Your task to perform on an android device: change alarm snooze length Image 0: 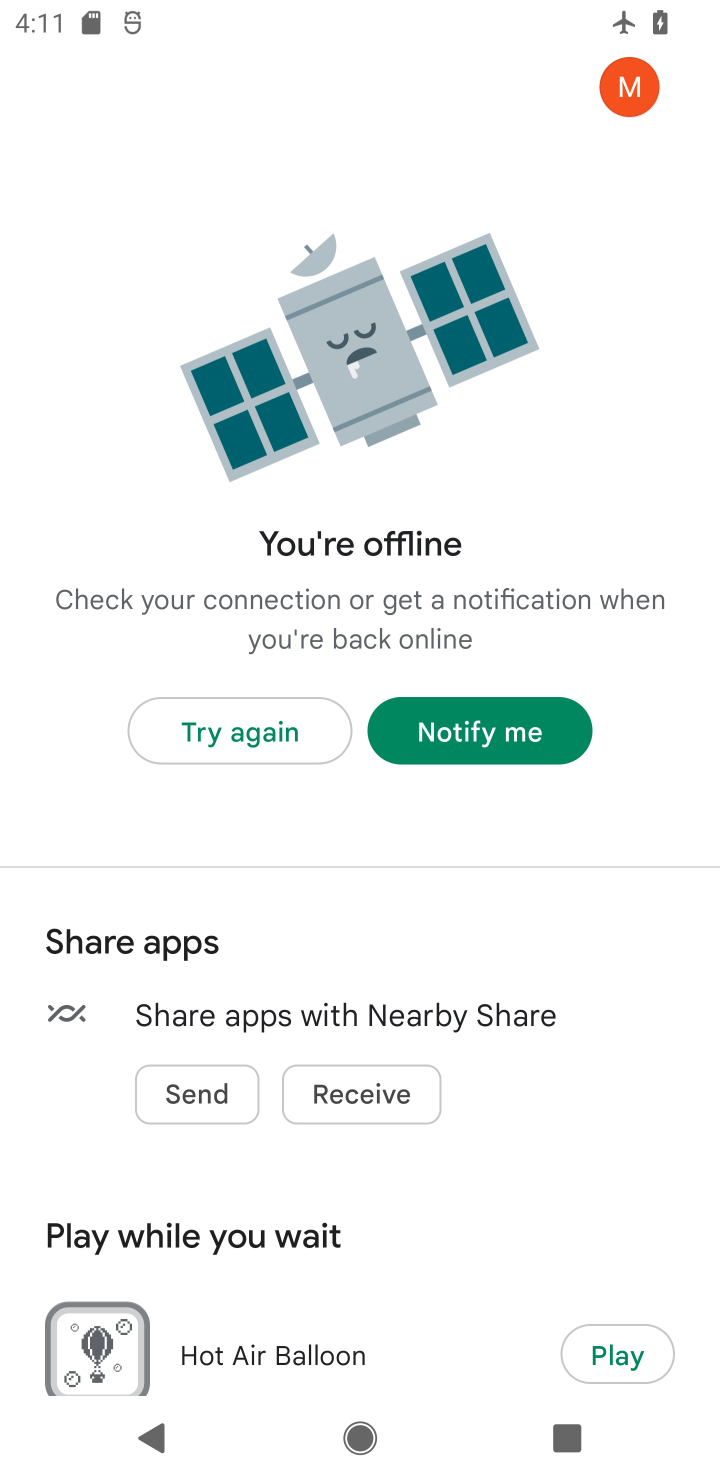
Step 0: press back button
Your task to perform on an android device: change alarm snooze length Image 1: 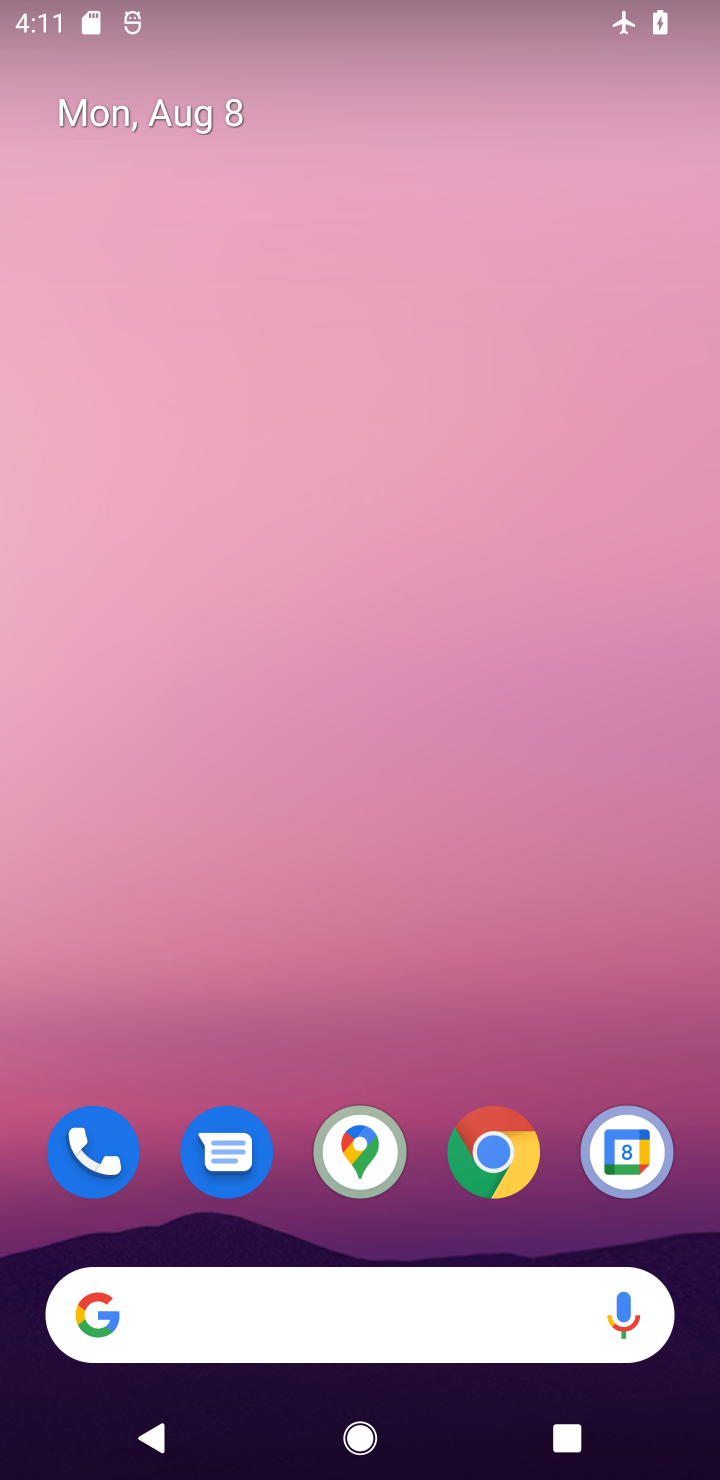
Step 1: drag from (331, 952) to (517, 40)
Your task to perform on an android device: change alarm snooze length Image 2: 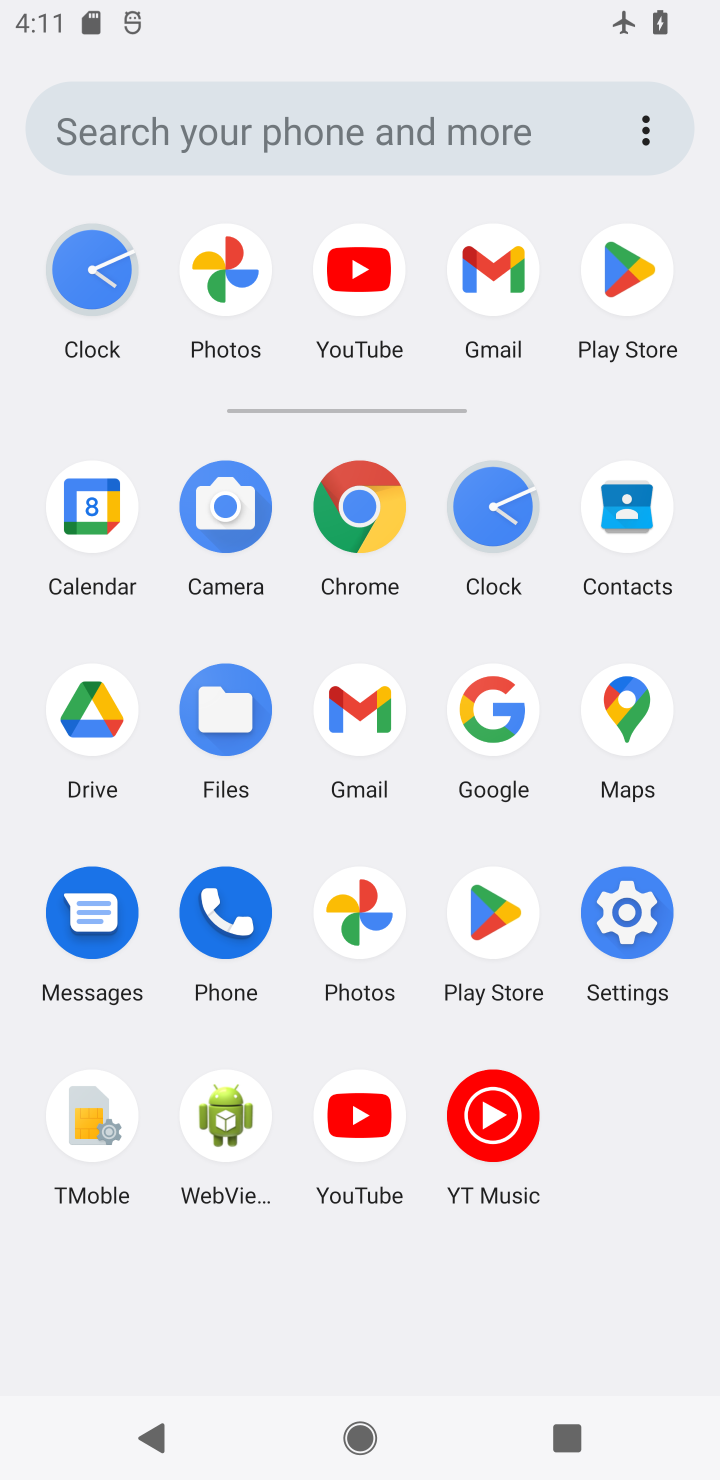
Step 2: click (507, 523)
Your task to perform on an android device: change alarm snooze length Image 3: 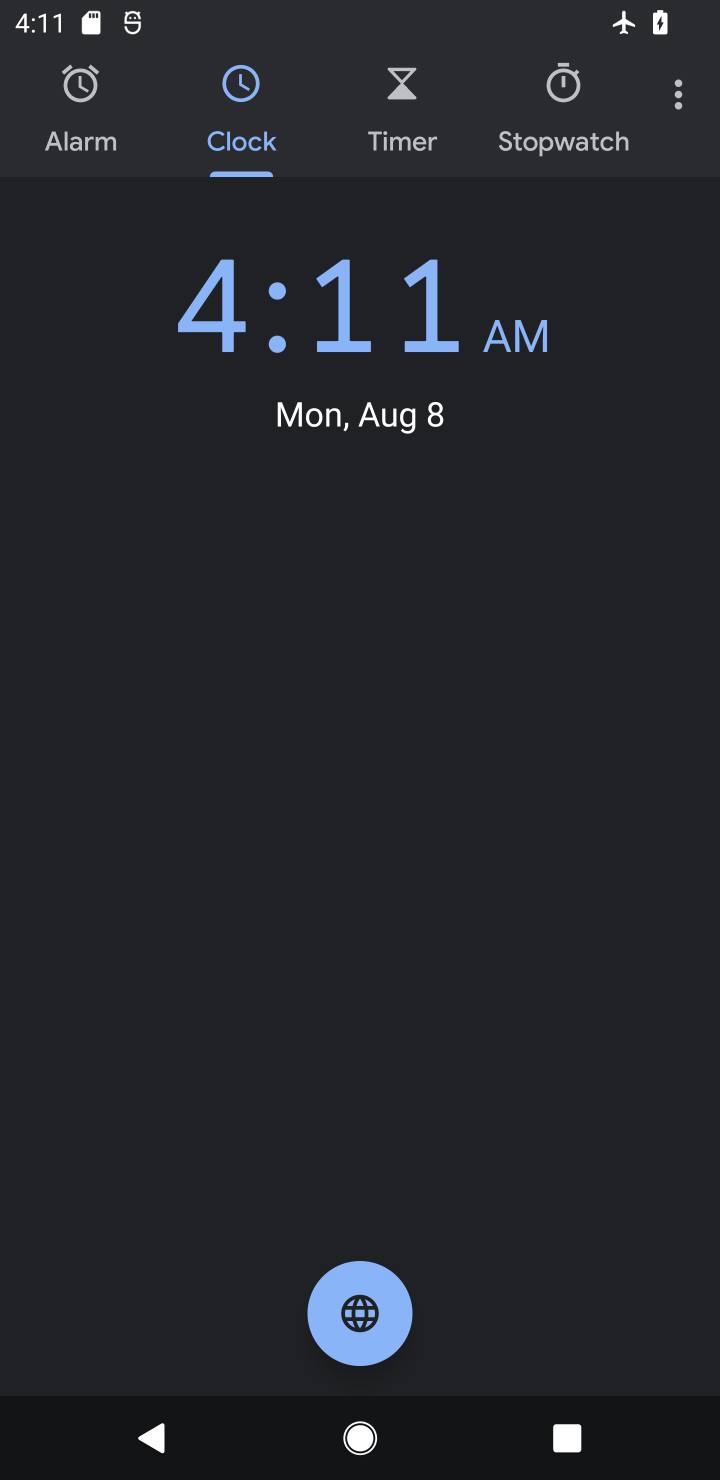
Step 3: click (689, 82)
Your task to perform on an android device: change alarm snooze length Image 4: 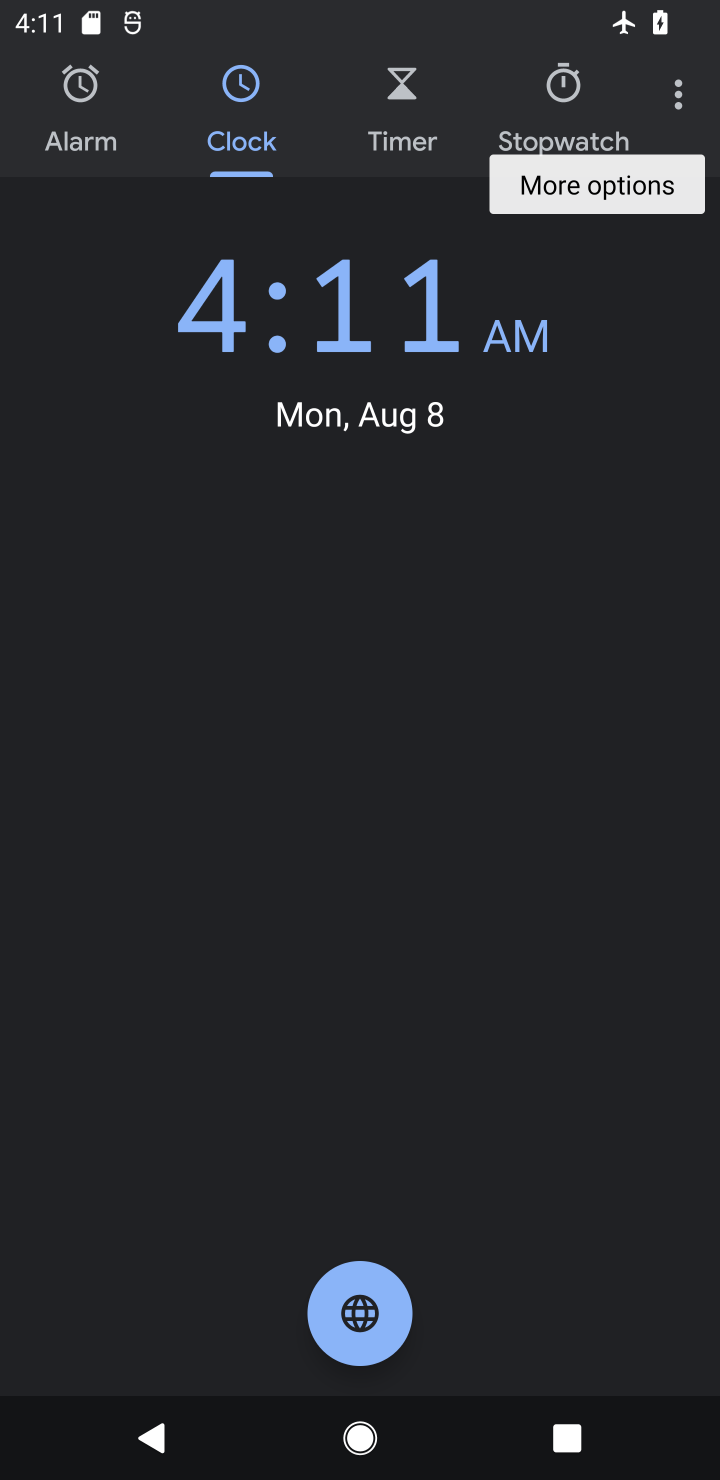
Step 4: click (682, 72)
Your task to perform on an android device: change alarm snooze length Image 5: 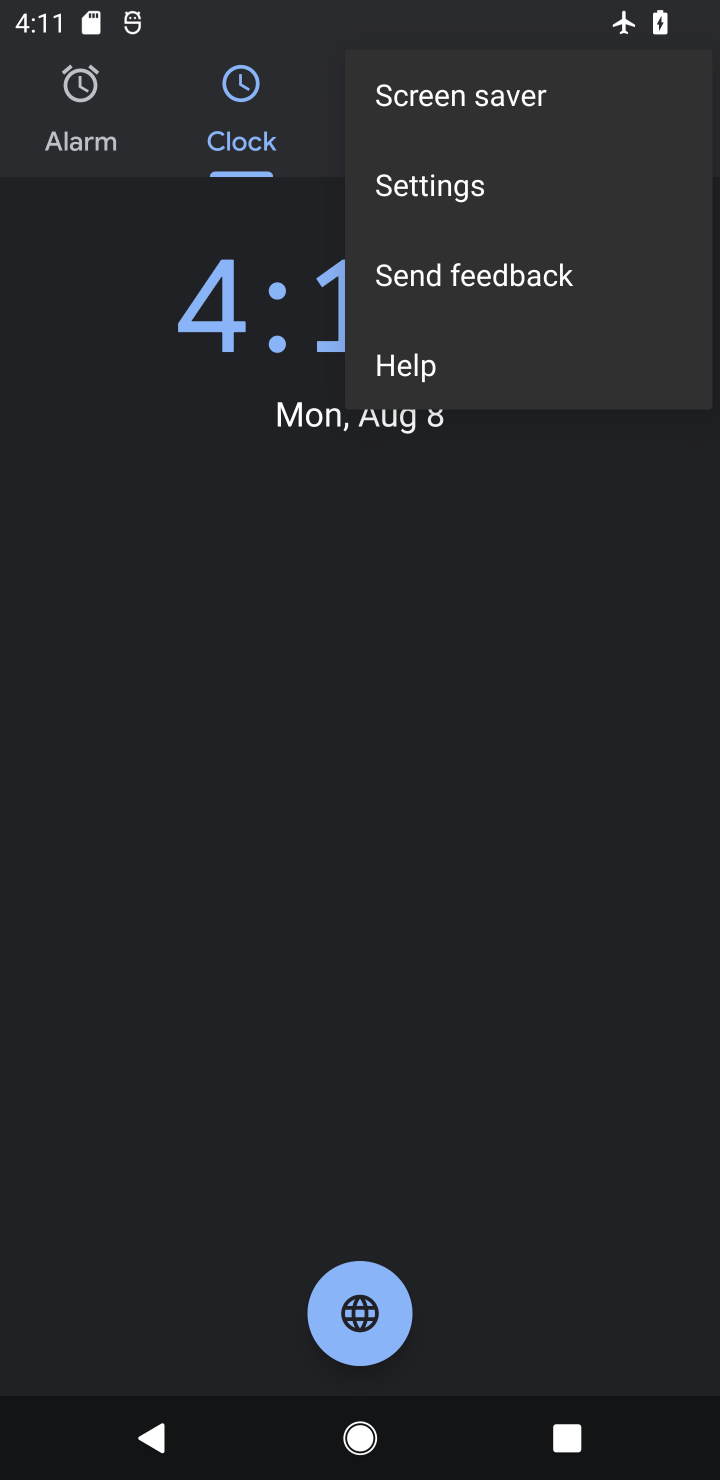
Step 5: click (467, 173)
Your task to perform on an android device: change alarm snooze length Image 6: 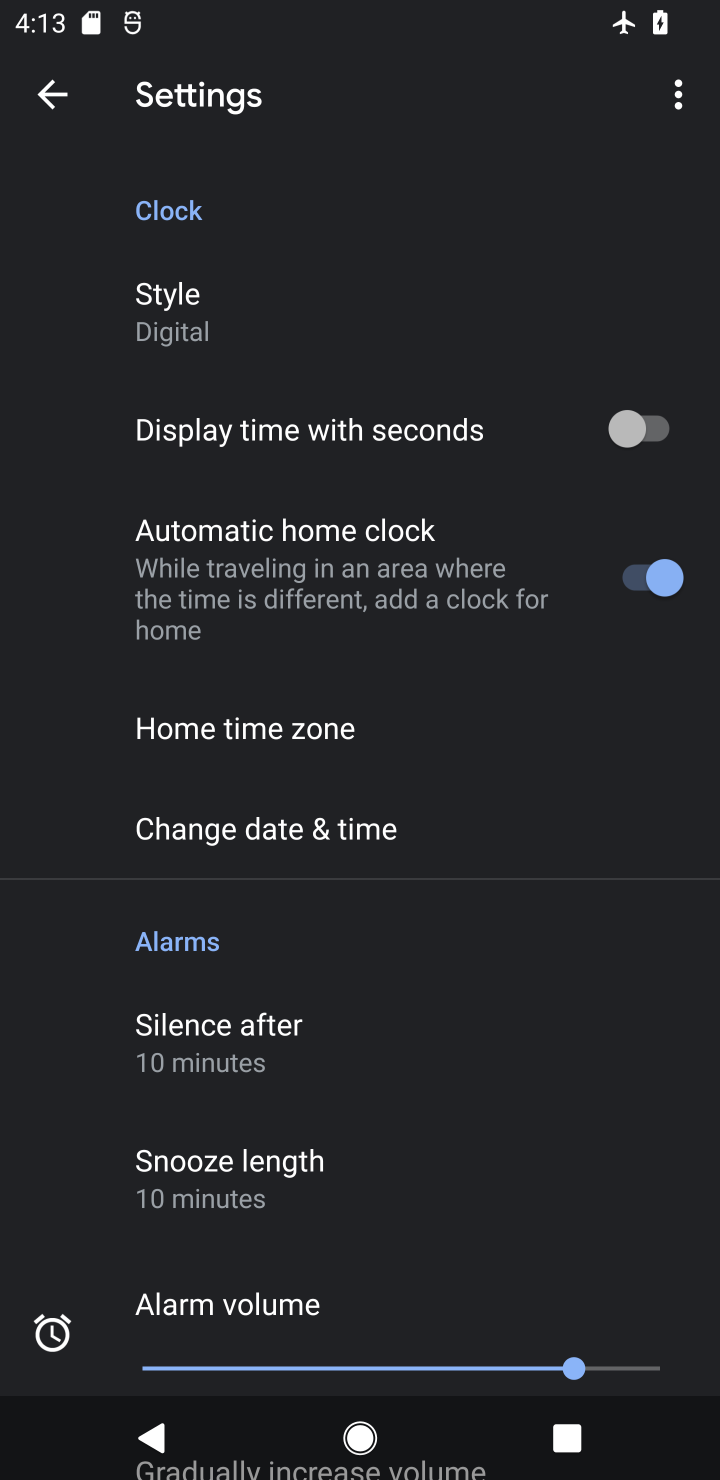
Step 6: click (291, 1166)
Your task to perform on an android device: change alarm snooze length Image 7: 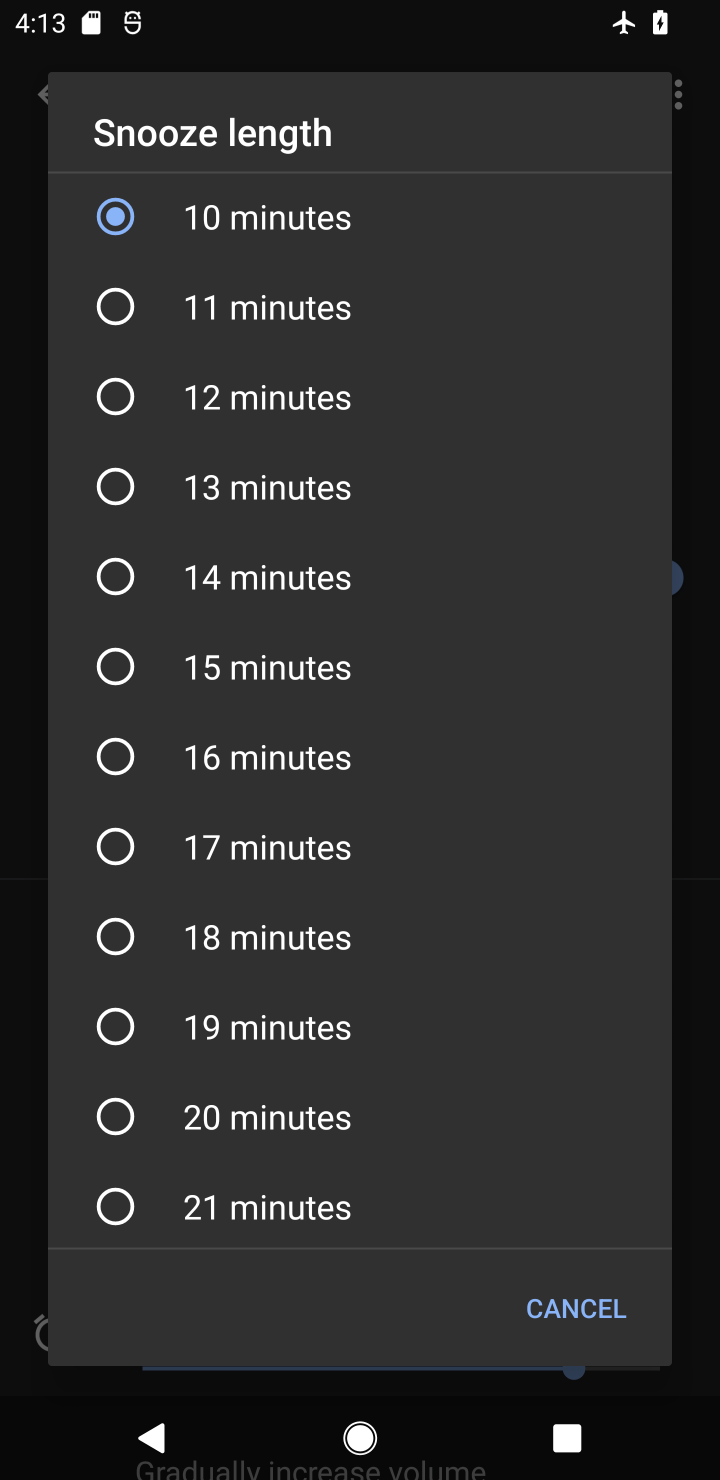
Step 7: click (159, 339)
Your task to perform on an android device: change alarm snooze length Image 8: 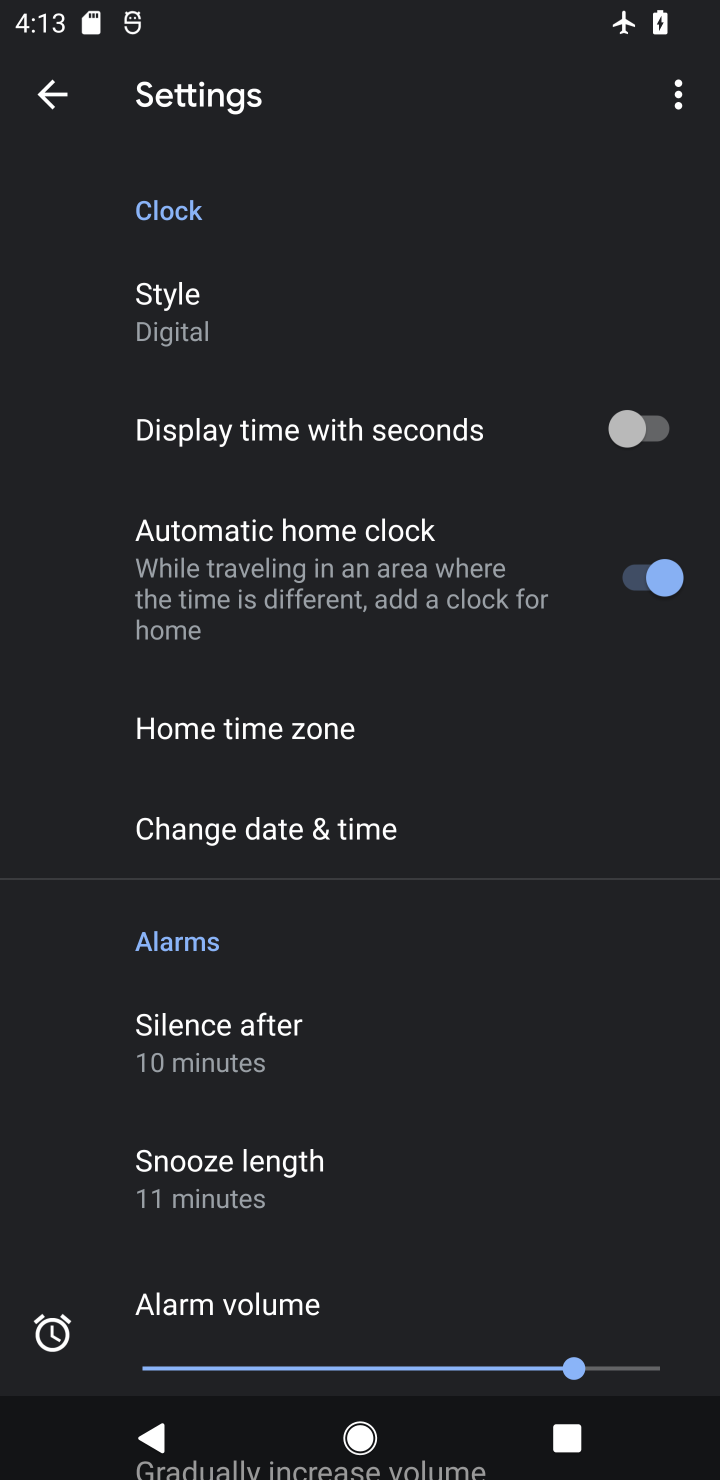
Step 8: task complete